Your task to perform on an android device: see sites visited before in the chrome app Image 0: 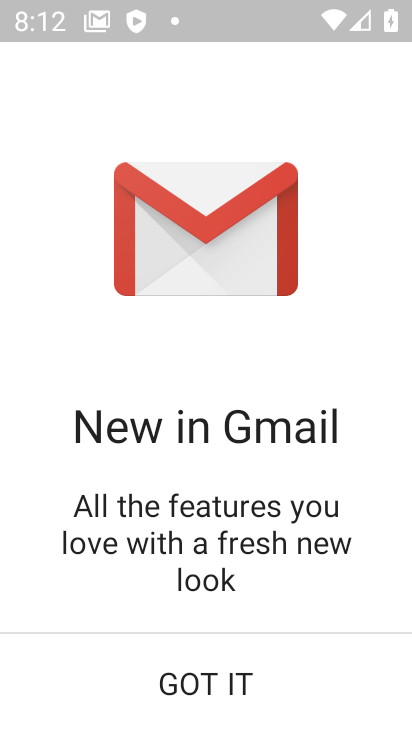
Step 0: press home button
Your task to perform on an android device: see sites visited before in the chrome app Image 1: 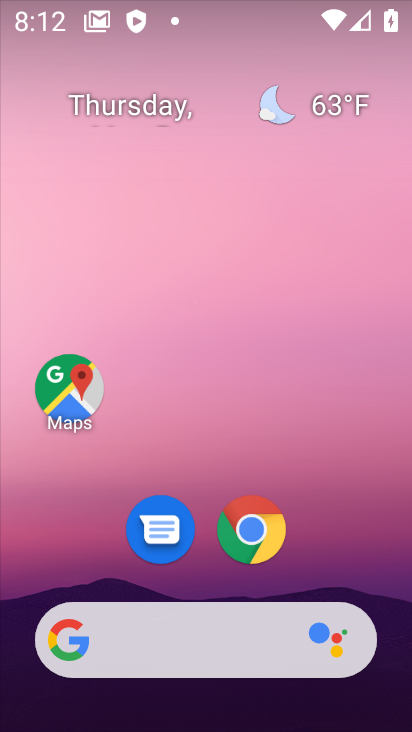
Step 1: click (262, 535)
Your task to perform on an android device: see sites visited before in the chrome app Image 2: 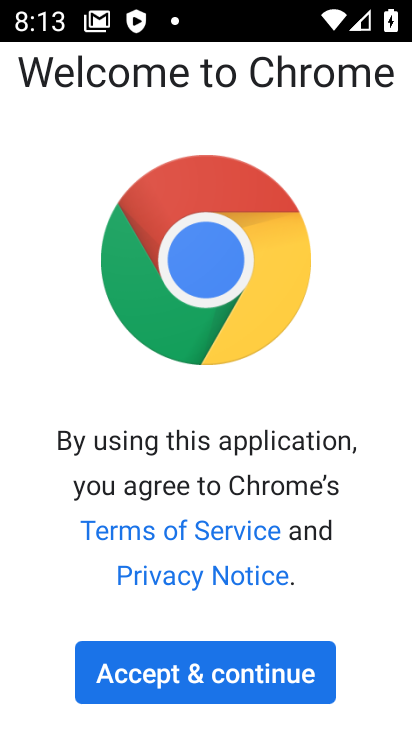
Step 2: click (234, 659)
Your task to perform on an android device: see sites visited before in the chrome app Image 3: 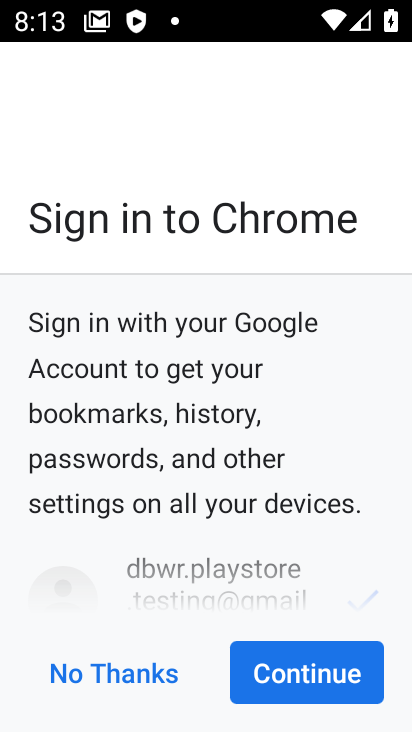
Step 3: click (274, 648)
Your task to perform on an android device: see sites visited before in the chrome app Image 4: 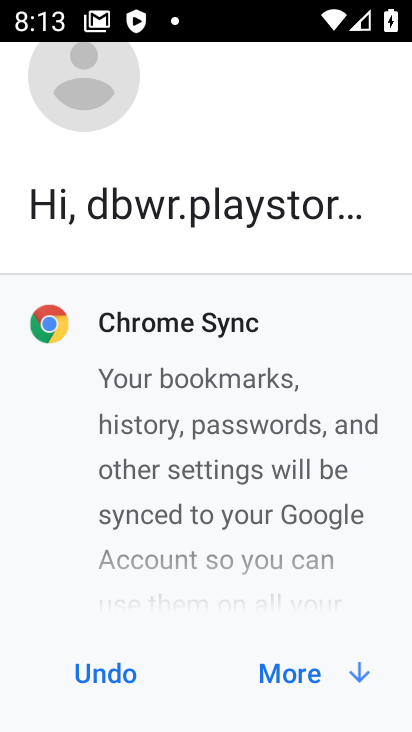
Step 4: click (289, 665)
Your task to perform on an android device: see sites visited before in the chrome app Image 5: 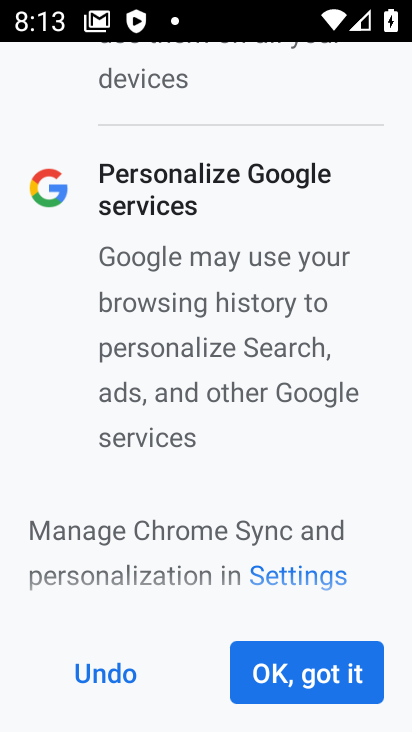
Step 5: click (276, 691)
Your task to perform on an android device: see sites visited before in the chrome app Image 6: 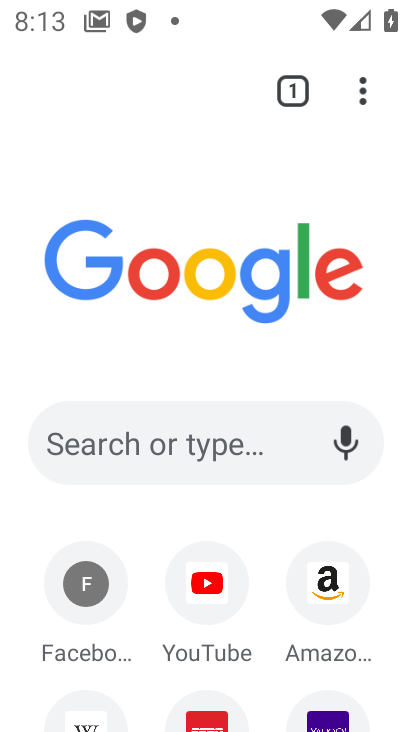
Step 6: click (359, 94)
Your task to perform on an android device: see sites visited before in the chrome app Image 7: 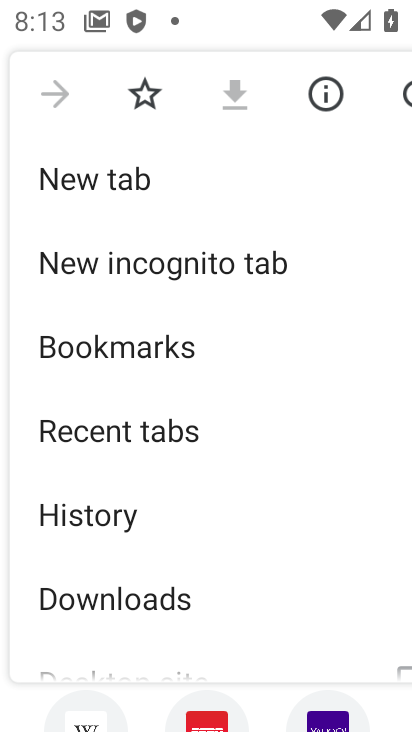
Step 7: click (140, 442)
Your task to perform on an android device: see sites visited before in the chrome app Image 8: 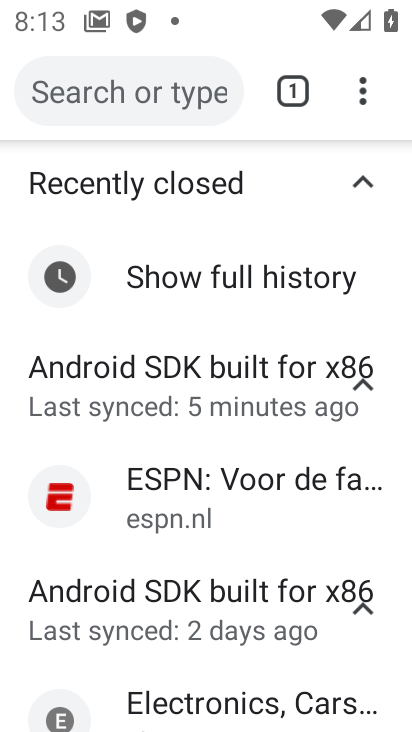
Step 8: task complete